Your task to perform on an android device: turn pop-ups off in chrome Image 0: 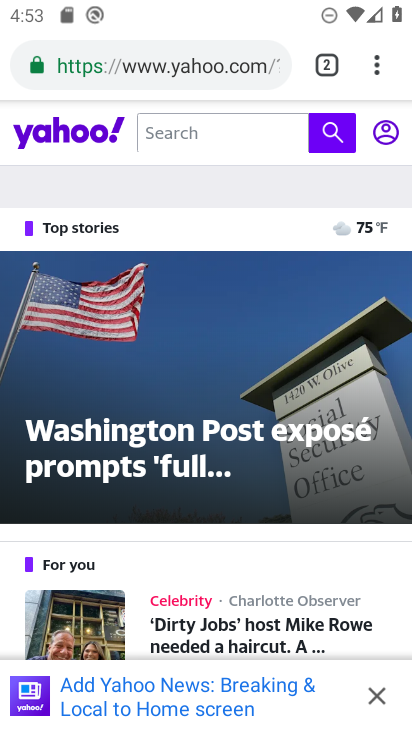
Step 0: press home button
Your task to perform on an android device: turn pop-ups off in chrome Image 1: 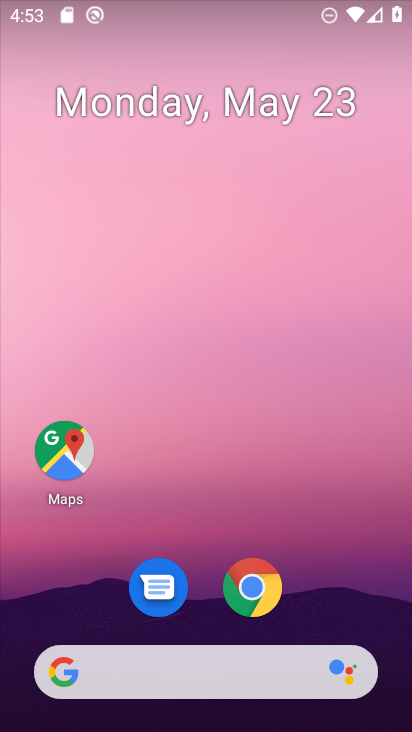
Step 1: click (256, 594)
Your task to perform on an android device: turn pop-ups off in chrome Image 2: 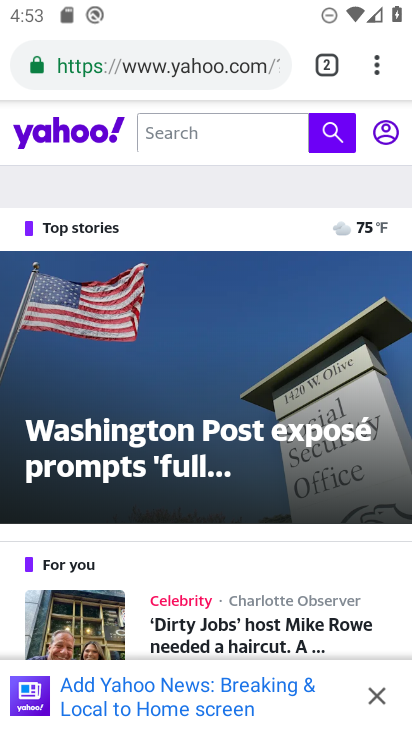
Step 2: click (372, 63)
Your task to perform on an android device: turn pop-ups off in chrome Image 3: 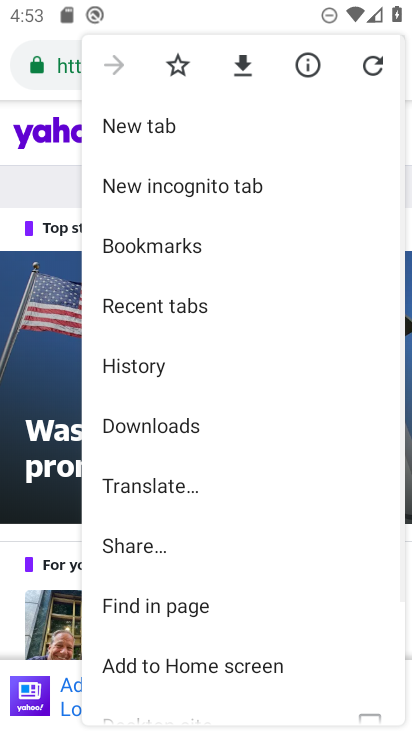
Step 3: drag from (165, 591) to (224, 195)
Your task to perform on an android device: turn pop-ups off in chrome Image 4: 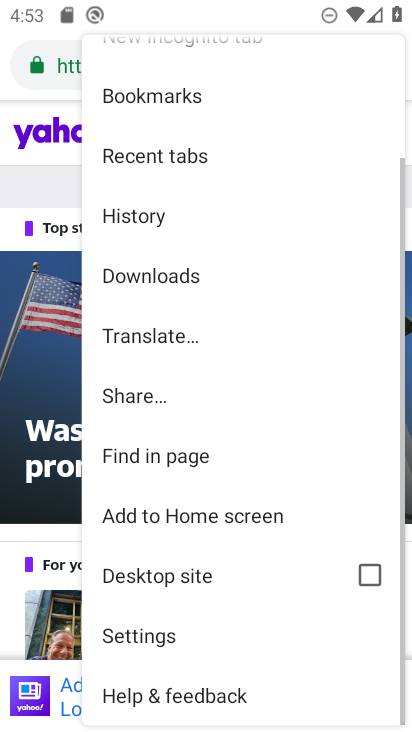
Step 4: click (163, 644)
Your task to perform on an android device: turn pop-ups off in chrome Image 5: 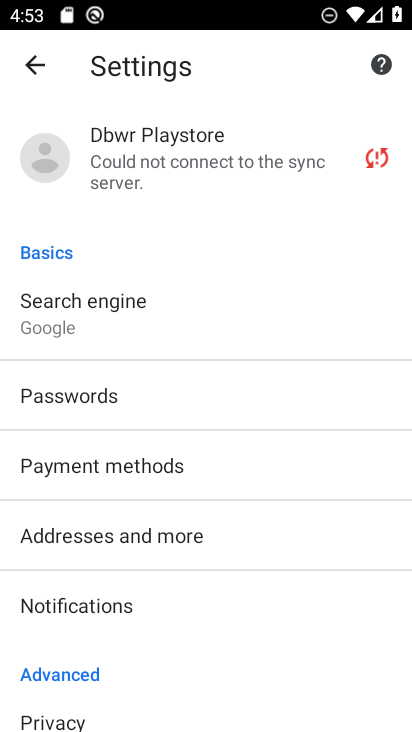
Step 5: drag from (137, 654) to (171, 274)
Your task to perform on an android device: turn pop-ups off in chrome Image 6: 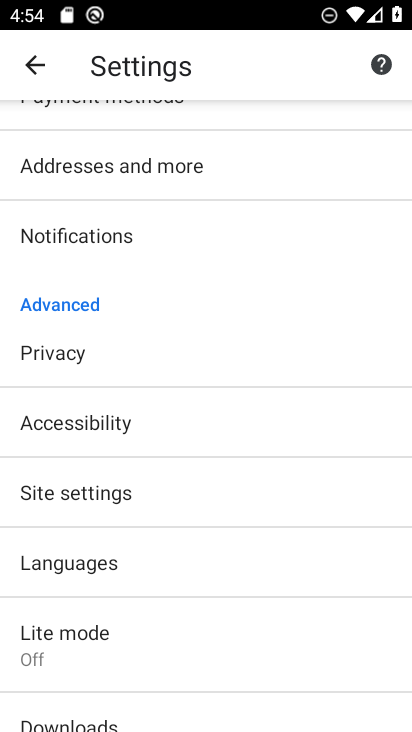
Step 6: click (106, 502)
Your task to perform on an android device: turn pop-ups off in chrome Image 7: 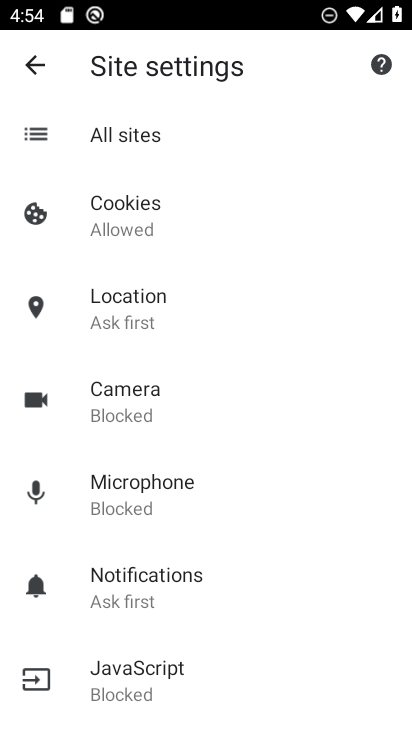
Step 7: drag from (199, 512) to (228, 287)
Your task to perform on an android device: turn pop-ups off in chrome Image 8: 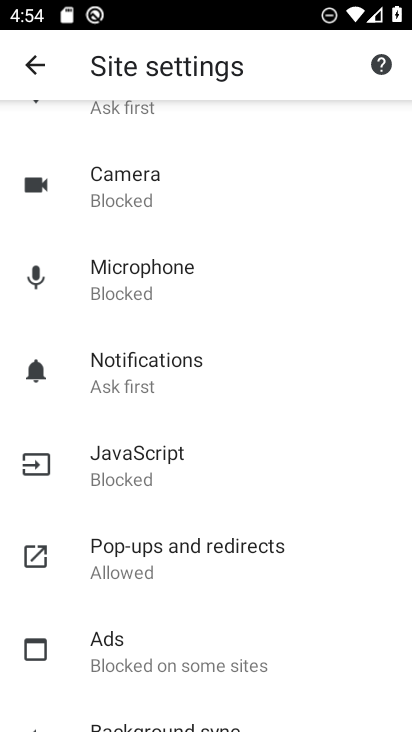
Step 8: drag from (174, 557) to (204, 298)
Your task to perform on an android device: turn pop-ups off in chrome Image 9: 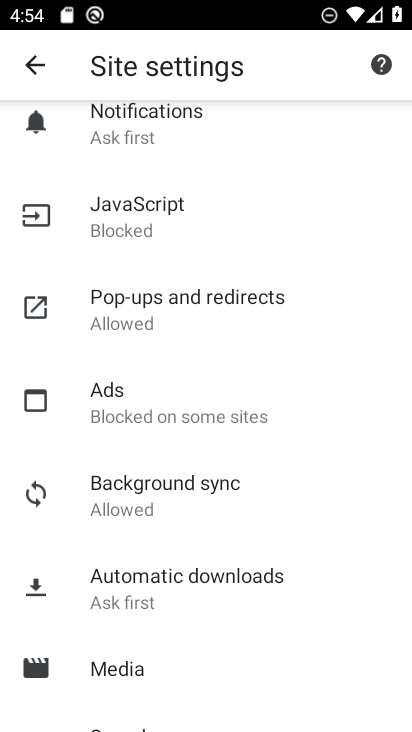
Step 9: click (174, 315)
Your task to perform on an android device: turn pop-ups off in chrome Image 10: 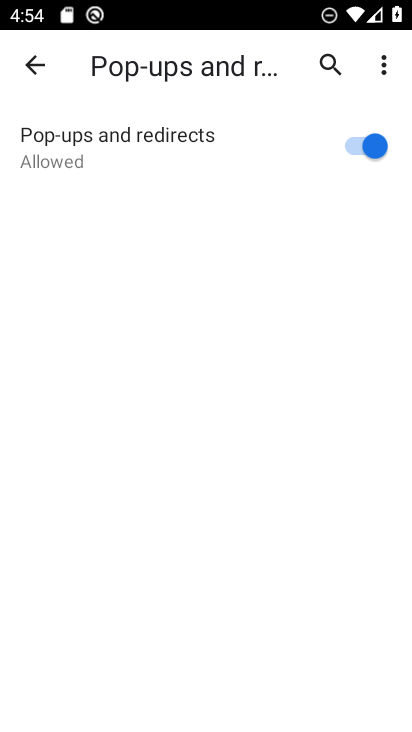
Step 10: click (330, 145)
Your task to perform on an android device: turn pop-ups off in chrome Image 11: 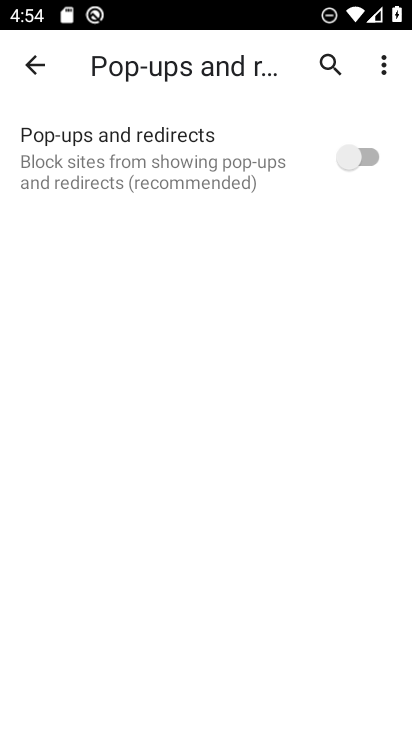
Step 11: task complete